Your task to perform on an android device: Open CNN.com Image 0: 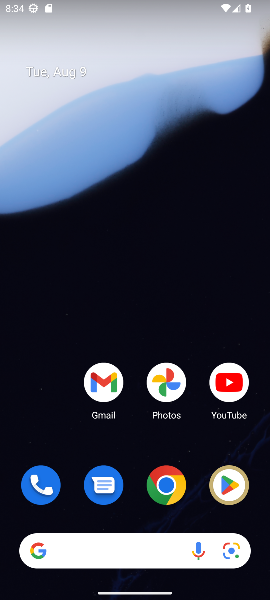
Step 0: click (168, 496)
Your task to perform on an android device: Open CNN.com Image 1: 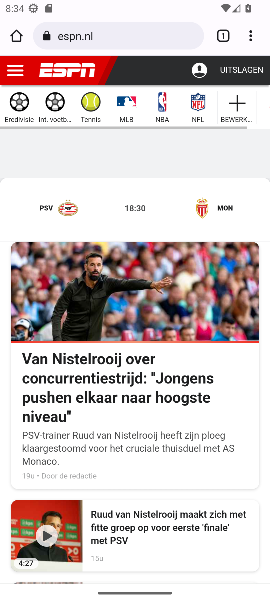
Step 1: click (87, 35)
Your task to perform on an android device: Open CNN.com Image 2: 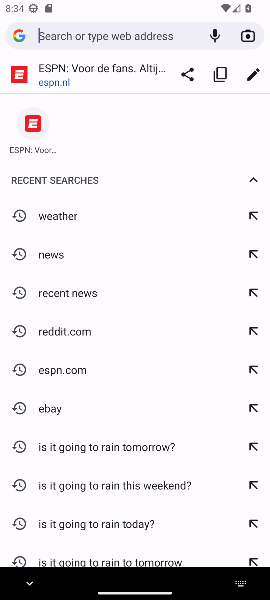
Step 2: type "cnn.com"
Your task to perform on an android device: Open CNN.com Image 3: 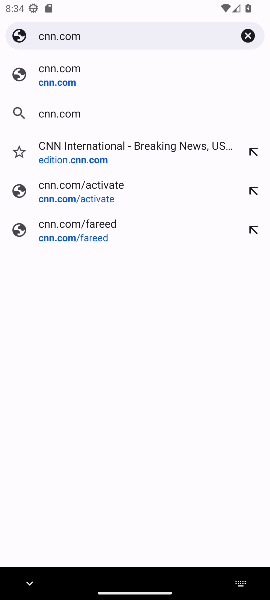
Step 3: click (75, 79)
Your task to perform on an android device: Open CNN.com Image 4: 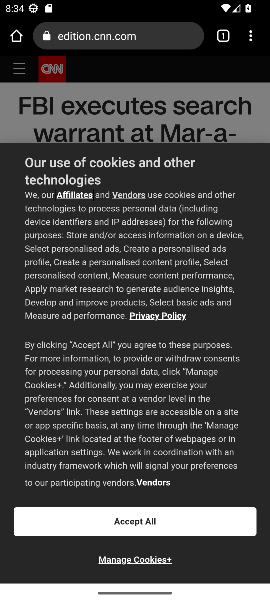
Step 4: task complete